Your task to perform on an android device: turn off translation in the chrome app Image 0: 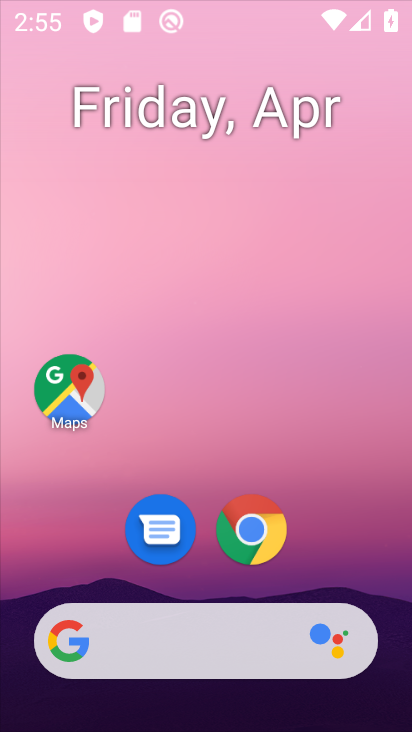
Step 0: click (250, 185)
Your task to perform on an android device: turn off translation in the chrome app Image 1: 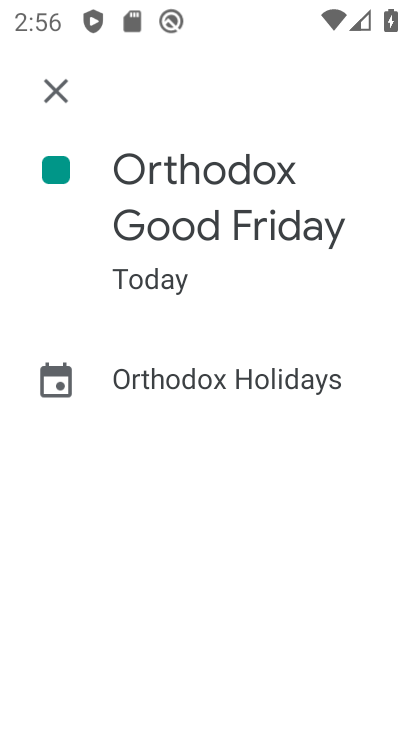
Step 1: click (70, 103)
Your task to perform on an android device: turn off translation in the chrome app Image 2: 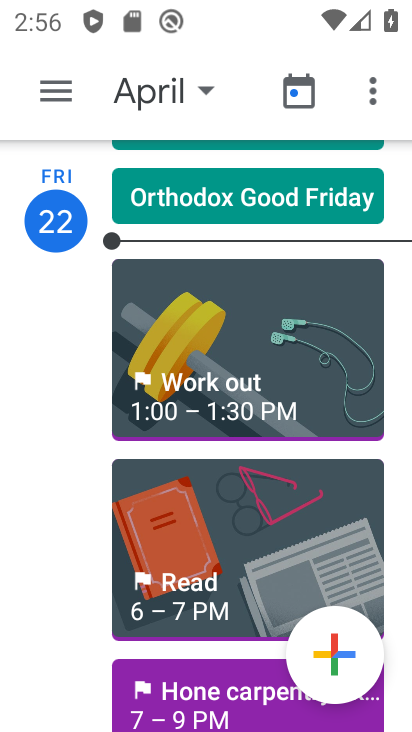
Step 2: press home button
Your task to perform on an android device: turn off translation in the chrome app Image 3: 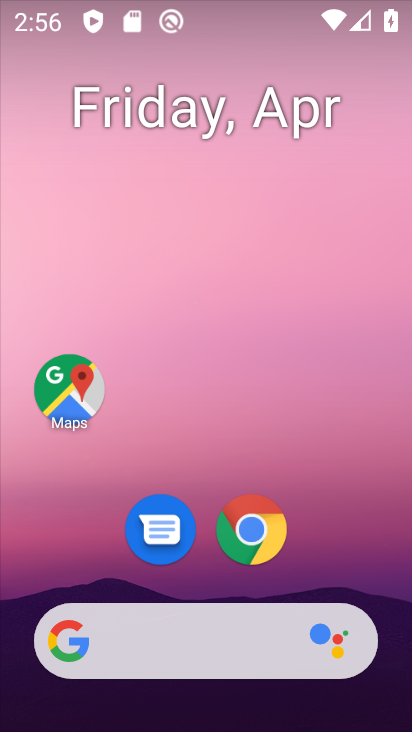
Step 3: click (278, 530)
Your task to perform on an android device: turn off translation in the chrome app Image 4: 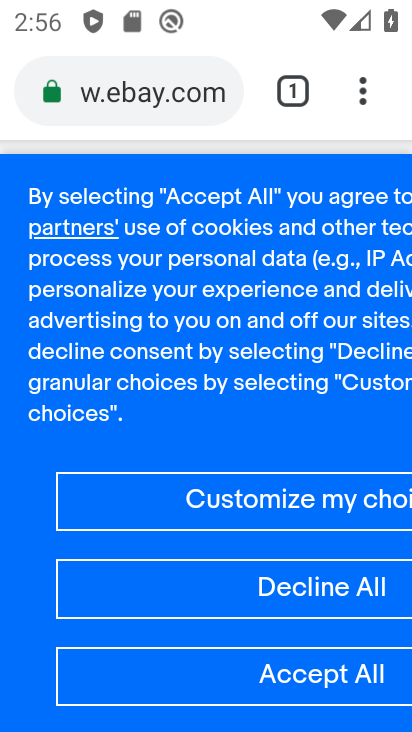
Step 4: click (365, 90)
Your task to perform on an android device: turn off translation in the chrome app Image 5: 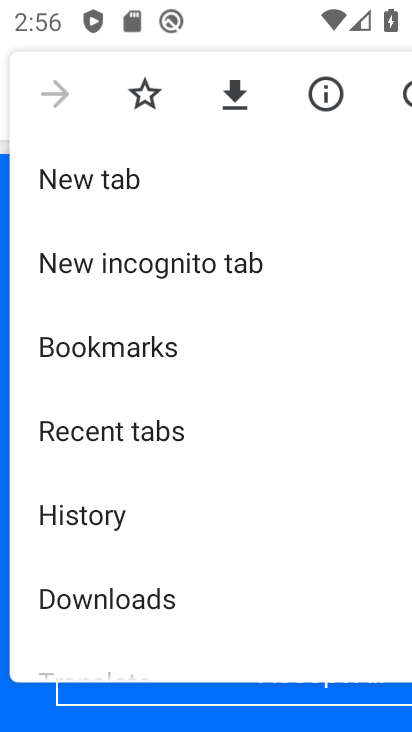
Step 5: drag from (160, 541) to (153, 286)
Your task to perform on an android device: turn off translation in the chrome app Image 6: 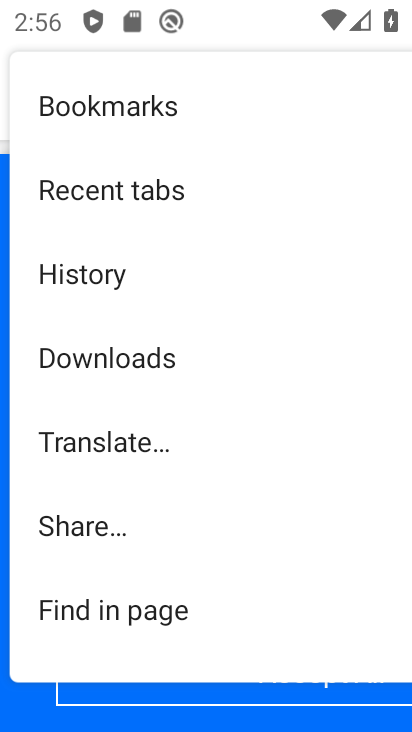
Step 6: click (162, 459)
Your task to perform on an android device: turn off translation in the chrome app Image 7: 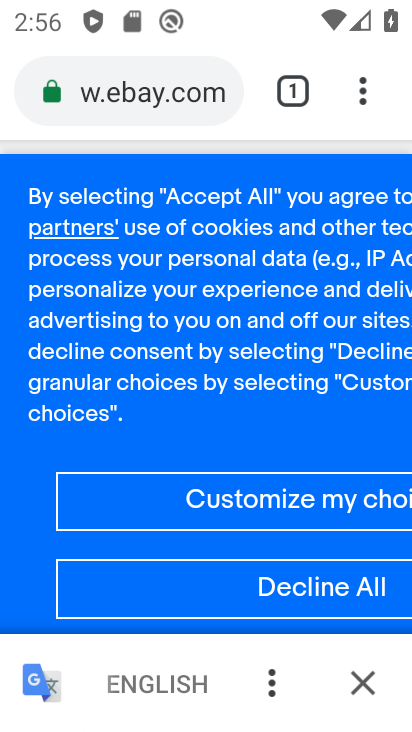
Step 7: click (272, 692)
Your task to perform on an android device: turn off translation in the chrome app Image 8: 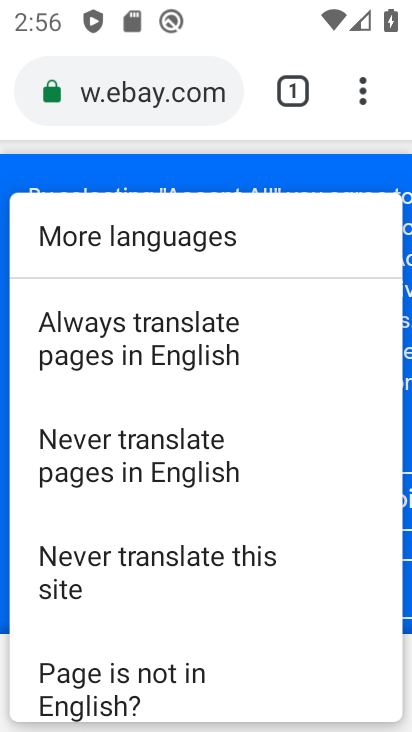
Step 8: click (247, 566)
Your task to perform on an android device: turn off translation in the chrome app Image 9: 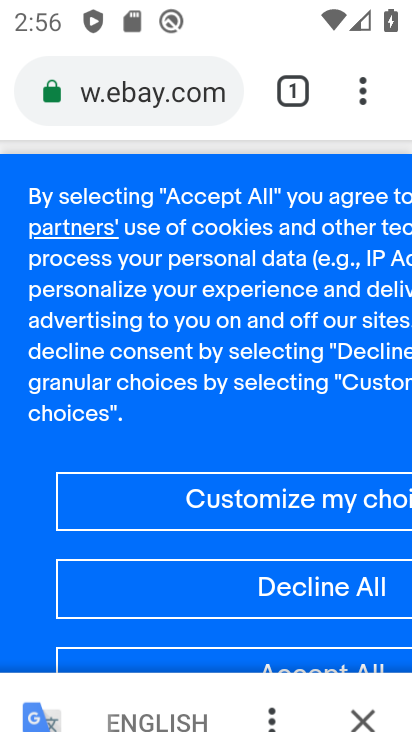
Step 9: task complete